Your task to perform on an android device: Open eBay Image 0: 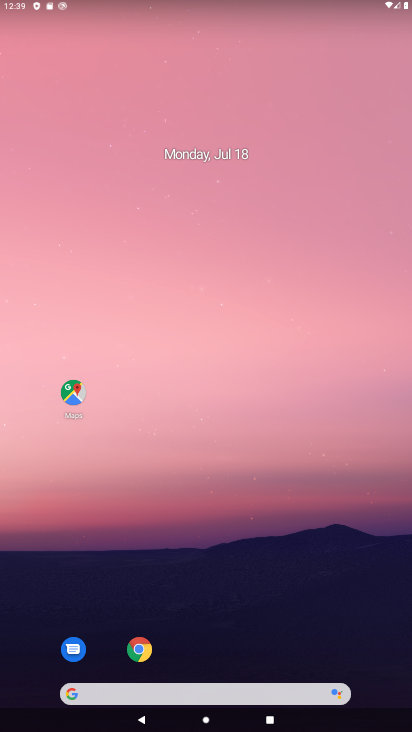
Step 0: click (137, 694)
Your task to perform on an android device: Open eBay Image 1: 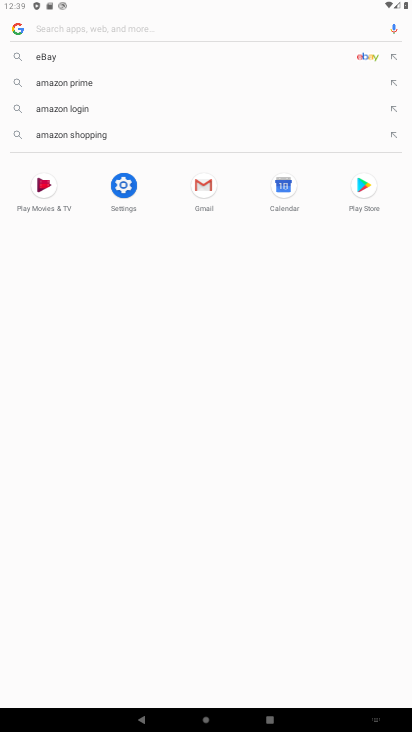
Step 1: click (43, 53)
Your task to perform on an android device: Open eBay Image 2: 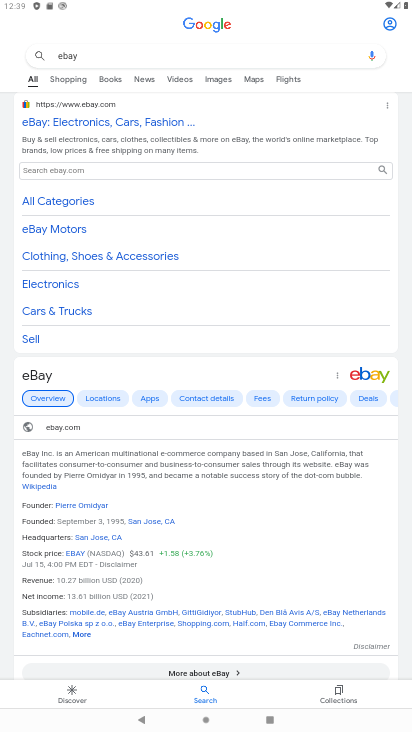
Step 2: task complete